Your task to perform on an android device: turn on translation in the chrome app Image 0: 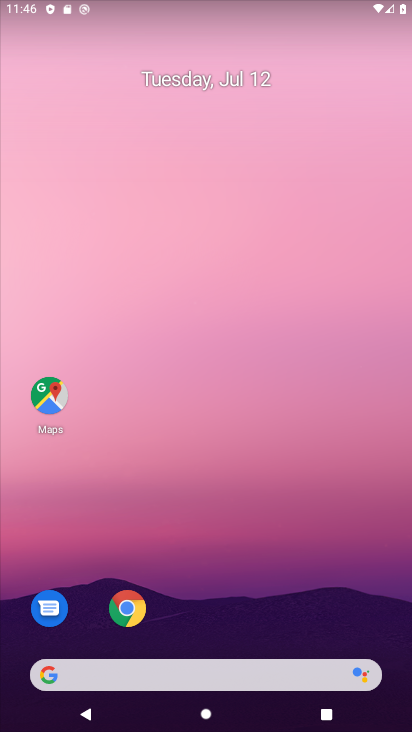
Step 0: click (46, 387)
Your task to perform on an android device: turn on translation in the chrome app Image 1: 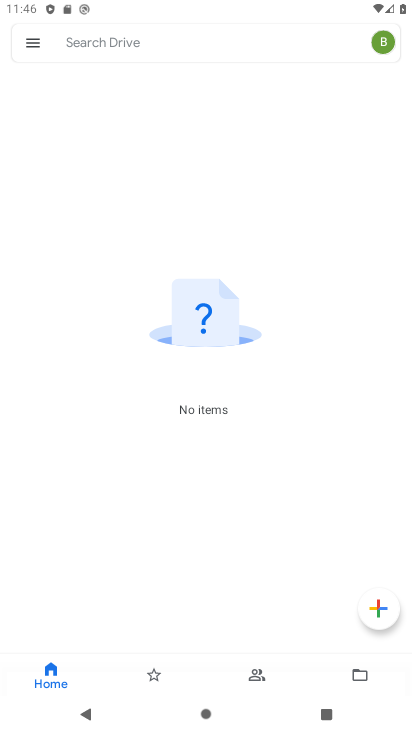
Step 1: press back button
Your task to perform on an android device: turn on translation in the chrome app Image 2: 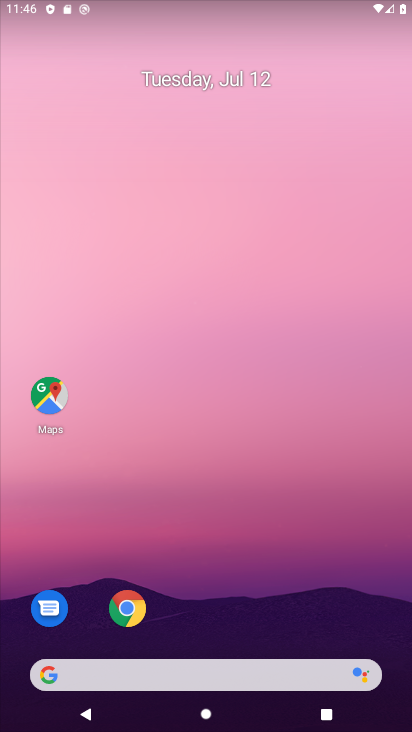
Step 2: click (131, 610)
Your task to perform on an android device: turn on translation in the chrome app Image 3: 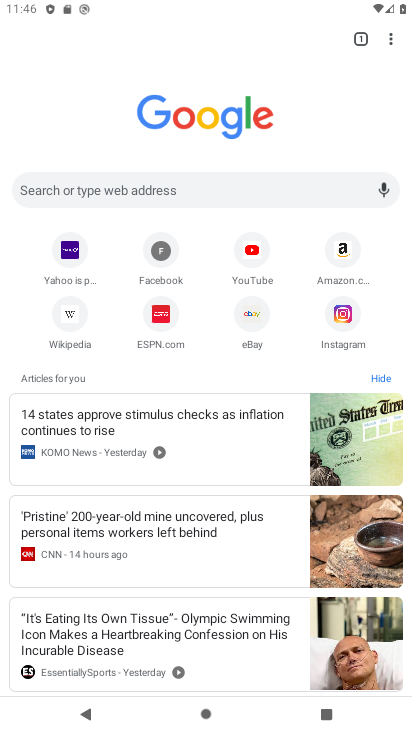
Step 3: drag from (396, 36) to (264, 375)
Your task to perform on an android device: turn on translation in the chrome app Image 4: 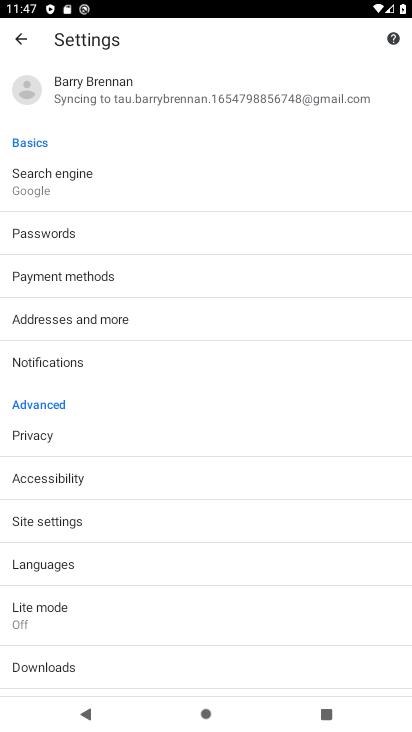
Step 4: click (54, 560)
Your task to perform on an android device: turn on translation in the chrome app Image 5: 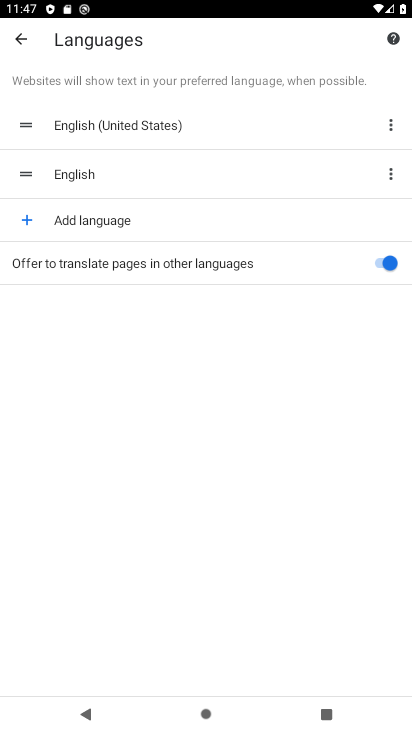
Step 5: task complete